Your task to perform on an android device: make emails show in primary in the gmail app Image 0: 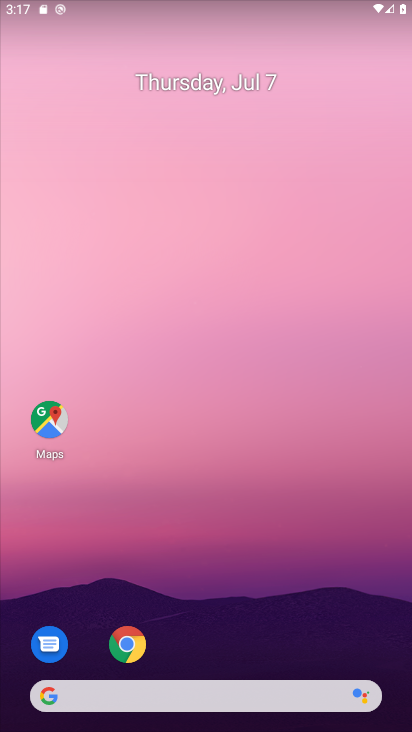
Step 0: drag from (238, 589) to (251, 3)
Your task to perform on an android device: make emails show in primary in the gmail app Image 1: 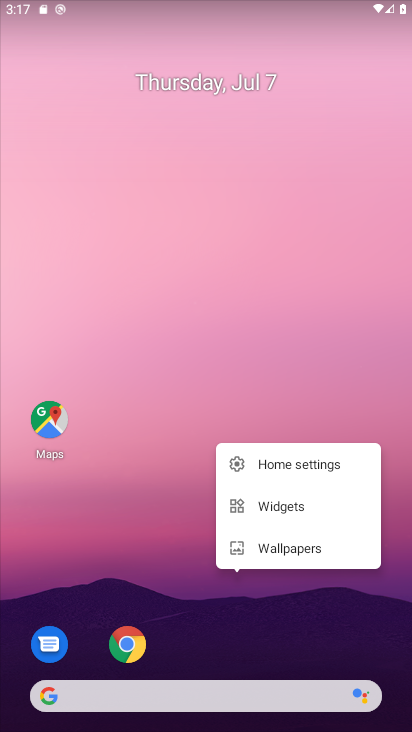
Step 1: drag from (165, 565) to (179, 11)
Your task to perform on an android device: make emails show in primary in the gmail app Image 2: 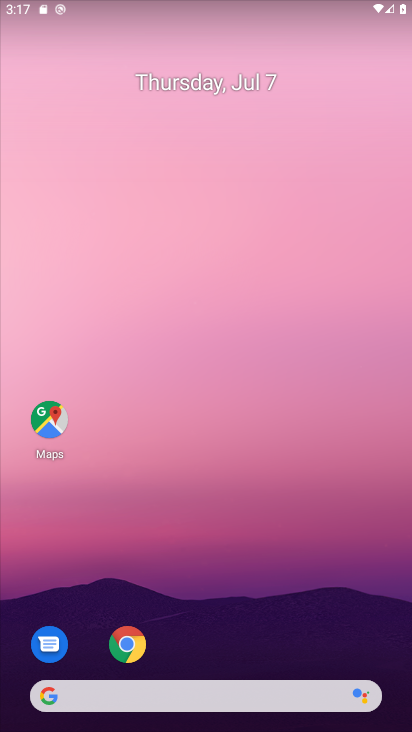
Step 2: drag from (247, 557) to (188, 0)
Your task to perform on an android device: make emails show in primary in the gmail app Image 3: 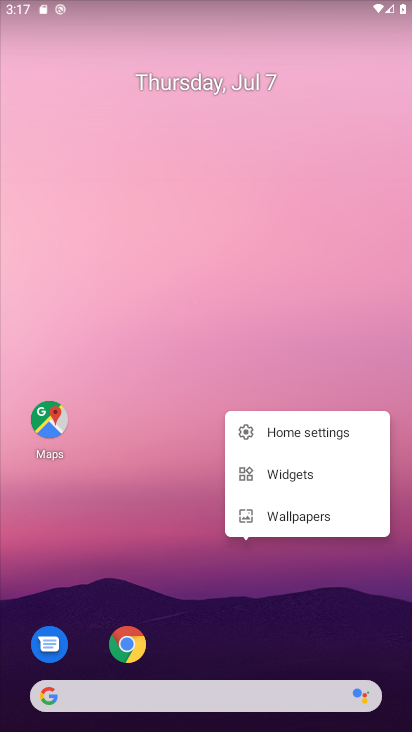
Step 3: drag from (221, 613) to (206, 102)
Your task to perform on an android device: make emails show in primary in the gmail app Image 4: 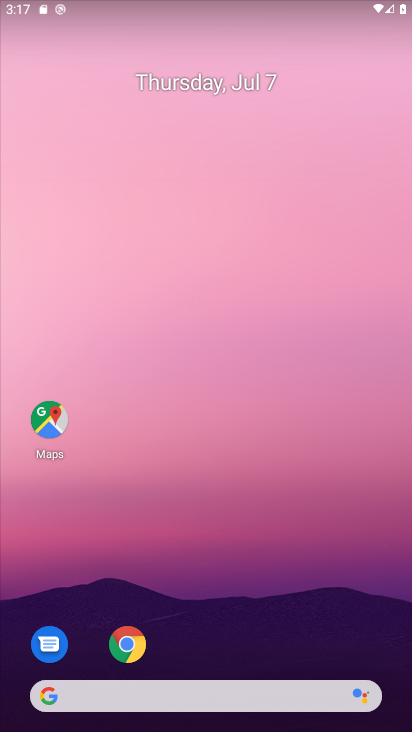
Step 4: drag from (250, 527) to (251, 1)
Your task to perform on an android device: make emails show in primary in the gmail app Image 5: 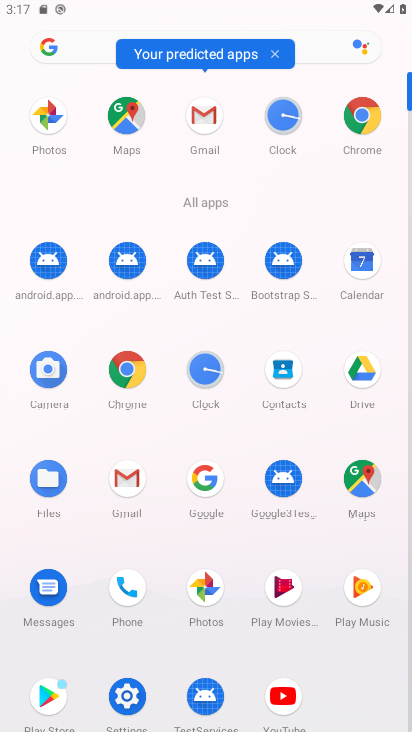
Step 5: click (209, 140)
Your task to perform on an android device: make emails show in primary in the gmail app Image 6: 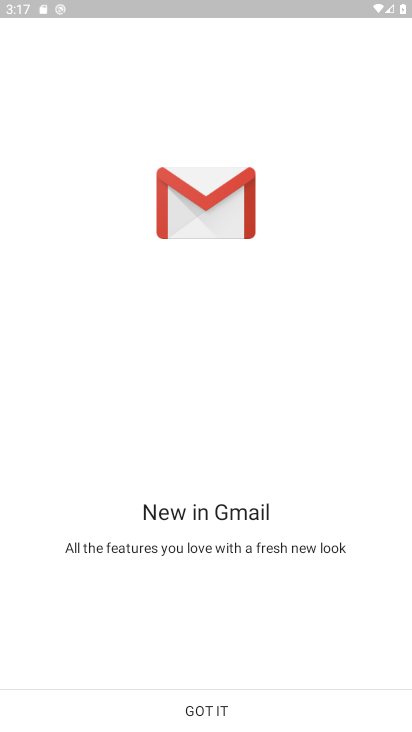
Step 6: click (235, 706)
Your task to perform on an android device: make emails show in primary in the gmail app Image 7: 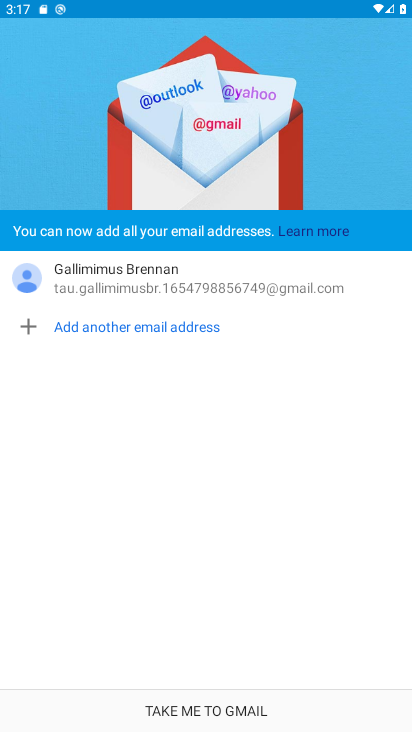
Step 7: click (235, 706)
Your task to perform on an android device: make emails show in primary in the gmail app Image 8: 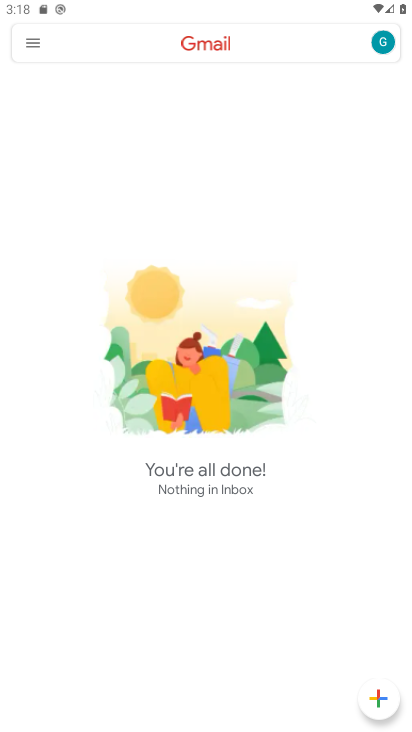
Step 8: click (29, 40)
Your task to perform on an android device: make emails show in primary in the gmail app Image 9: 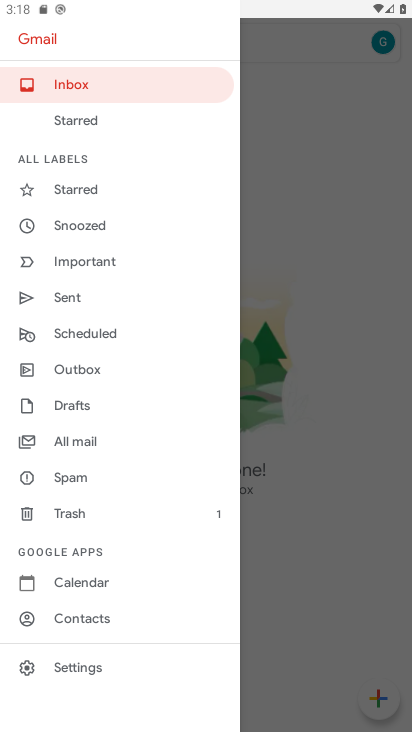
Step 9: click (131, 667)
Your task to perform on an android device: make emails show in primary in the gmail app Image 10: 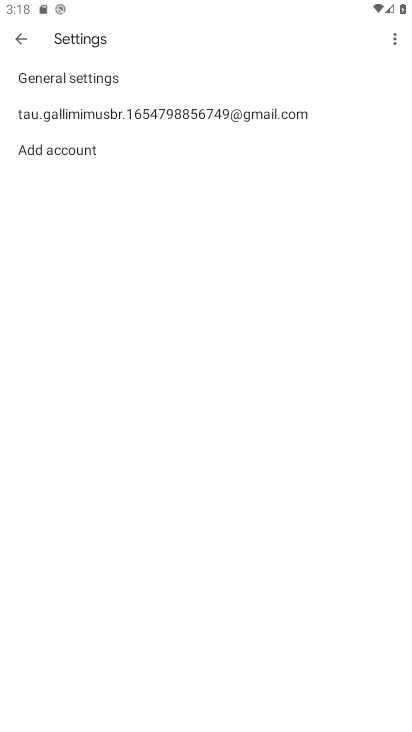
Step 10: click (147, 107)
Your task to perform on an android device: make emails show in primary in the gmail app Image 11: 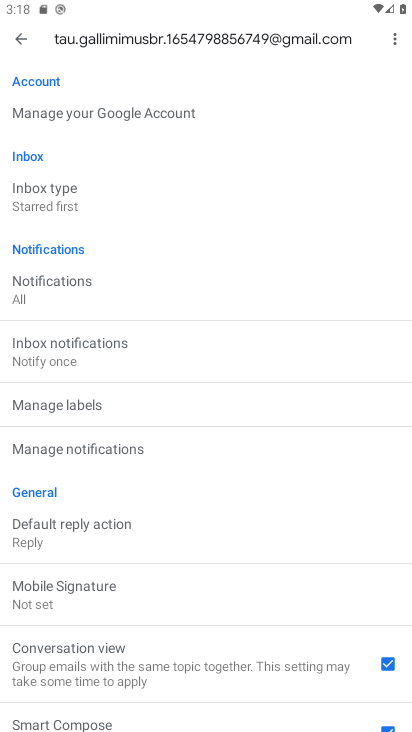
Step 11: click (65, 211)
Your task to perform on an android device: make emails show in primary in the gmail app Image 12: 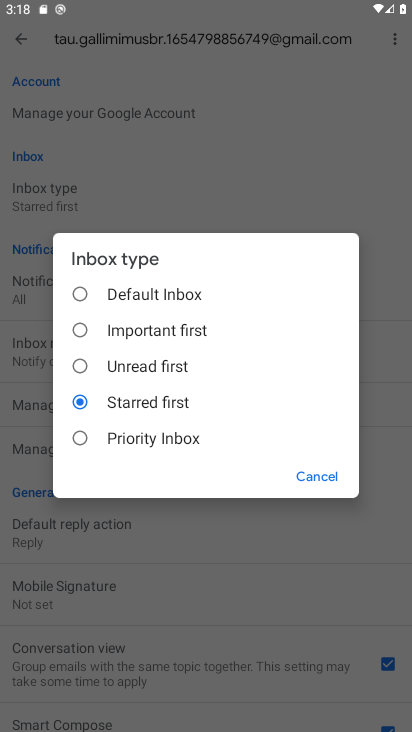
Step 12: click (120, 221)
Your task to perform on an android device: make emails show in primary in the gmail app Image 13: 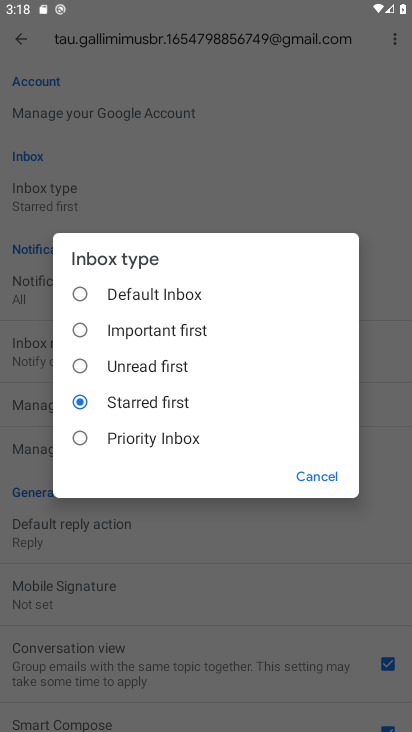
Step 13: task complete